Your task to perform on an android device: Open Chrome and go to the settings page Image 0: 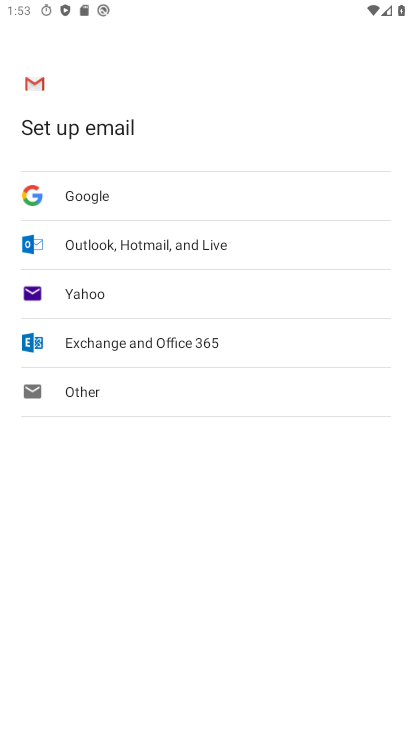
Step 0: press home button
Your task to perform on an android device: Open Chrome and go to the settings page Image 1: 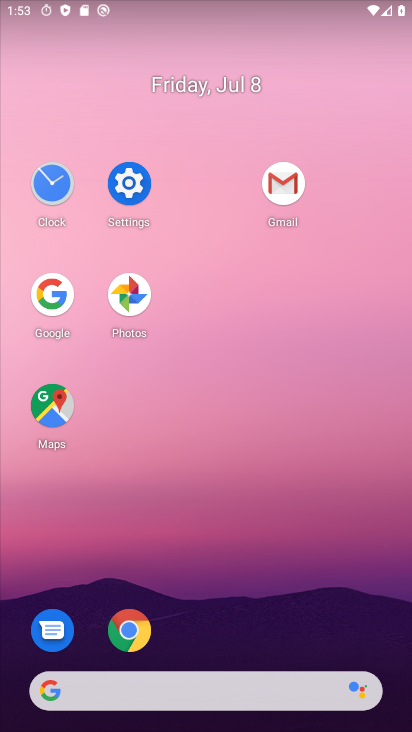
Step 1: click (132, 627)
Your task to perform on an android device: Open Chrome and go to the settings page Image 2: 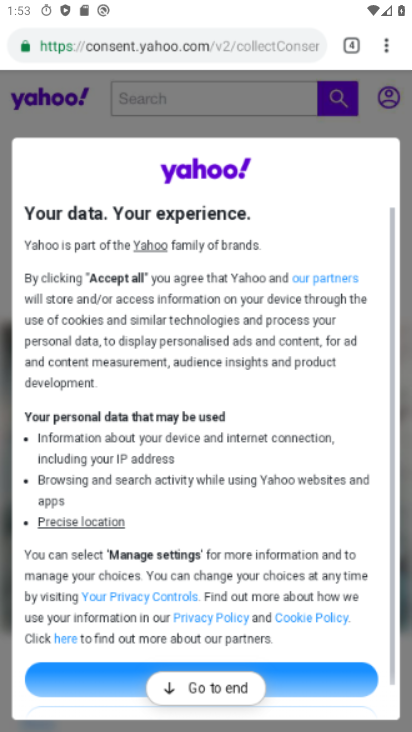
Step 2: click (394, 42)
Your task to perform on an android device: Open Chrome and go to the settings page Image 3: 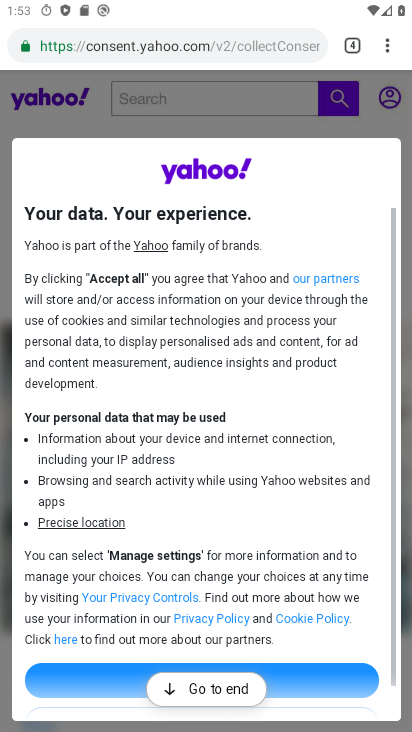
Step 3: click (385, 51)
Your task to perform on an android device: Open Chrome and go to the settings page Image 4: 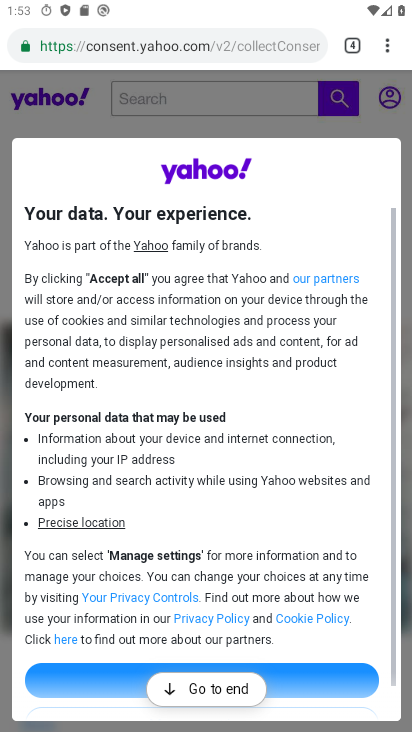
Step 4: click (392, 37)
Your task to perform on an android device: Open Chrome and go to the settings page Image 5: 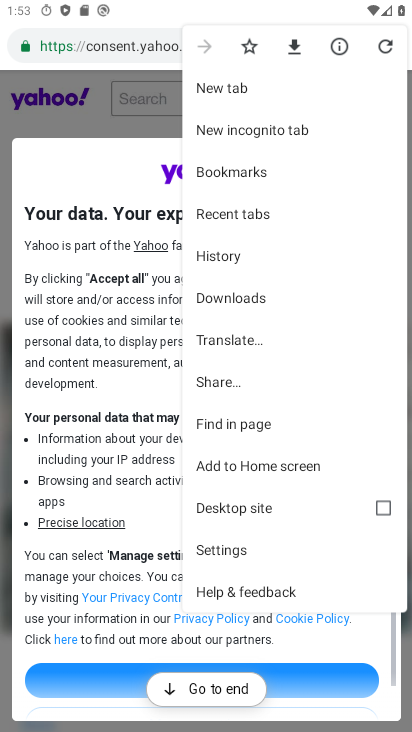
Step 5: click (228, 545)
Your task to perform on an android device: Open Chrome and go to the settings page Image 6: 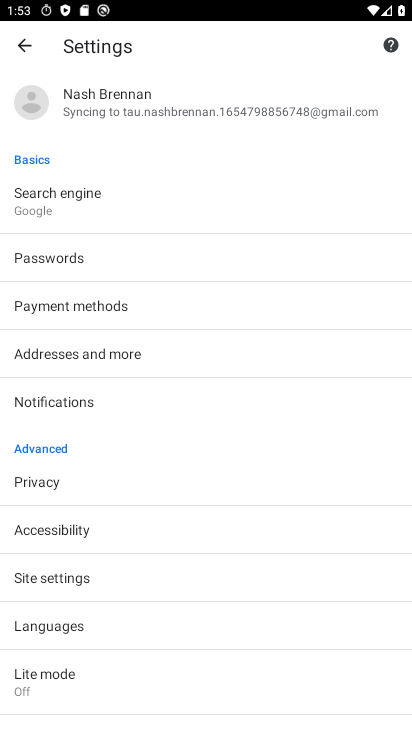
Step 6: task complete